Your task to perform on an android device: toggle improve location accuracy Image 0: 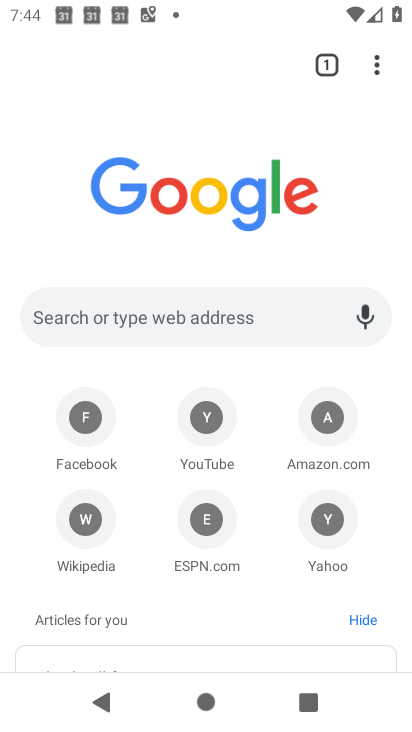
Step 0: press home button
Your task to perform on an android device: toggle improve location accuracy Image 1: 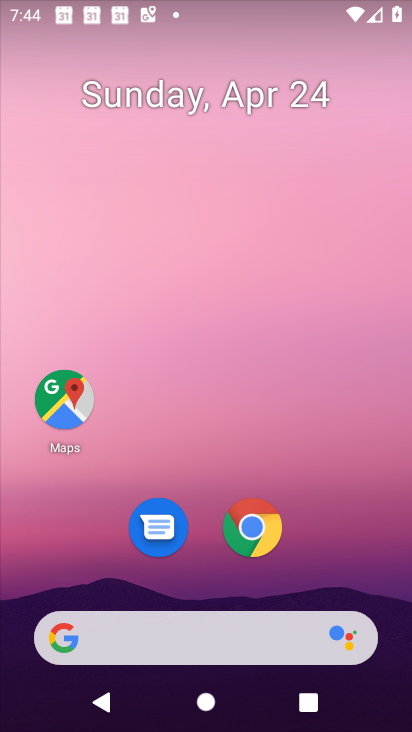
Step 1: drag from (380, 599) to (290, 59)
Your task to perform on an android device: toggle improve location accuracy Image 2: 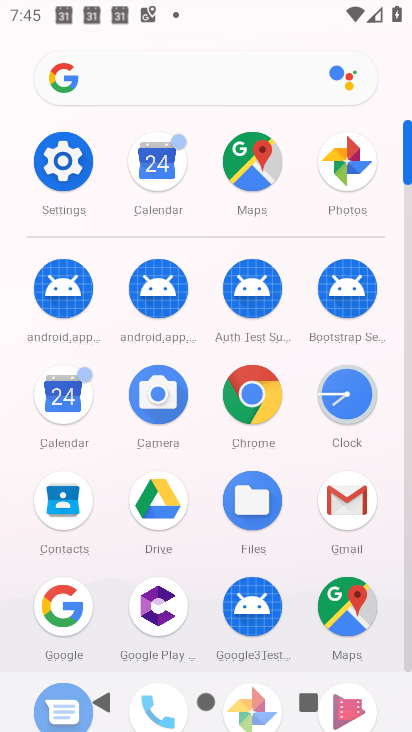
Step 2: click (59, 181)
Your task to perform on an android device: toggle improve location accuracy Image 3: 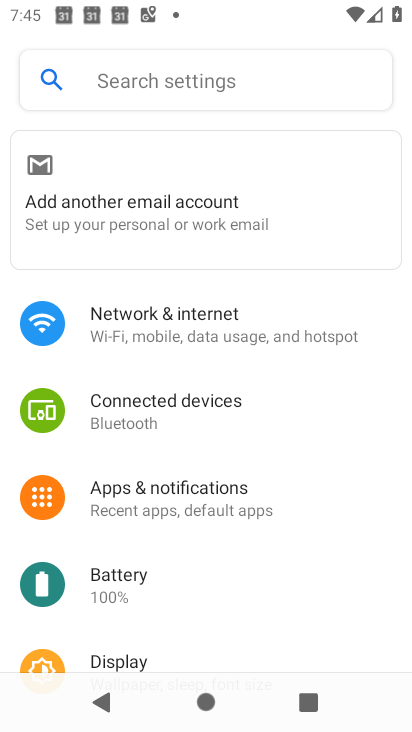
Step 3: drag from (170, 597) to (217, 171)
Your task to perform on an android device: toggle improve location accuracy Image 4: 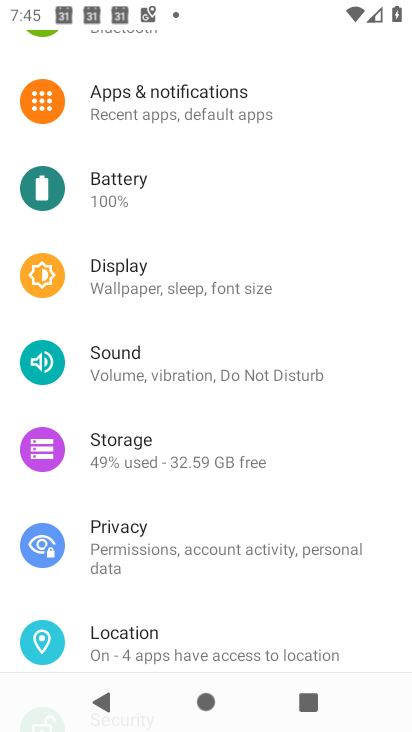
Step 4: click (138, 630)
Your task to perform on an android device: toggle improve location accuracy Image 5: 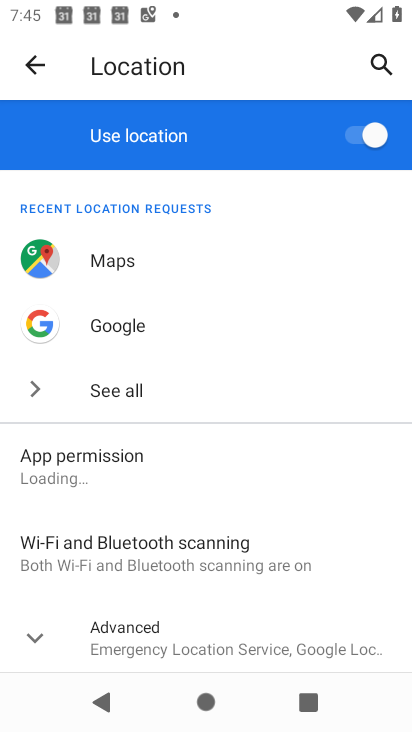
Step 5: click (153, 635)
Your task to perform on an android device: toggle improve location accuracy Image 6: 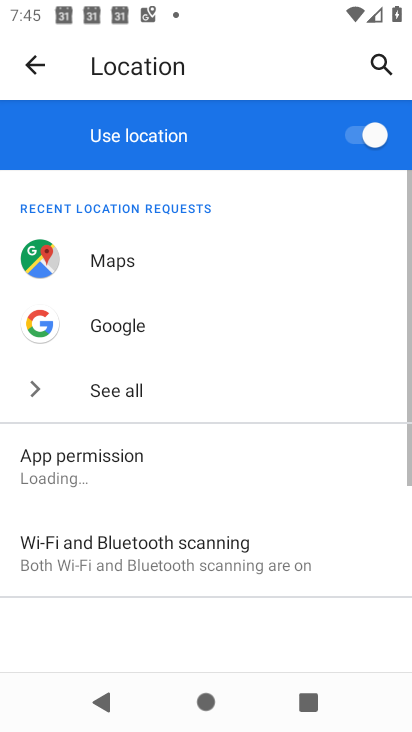
Step 6: drag from (153, 635) to (232, 310)
Your task to perform on an android device: toggle improve location accuracy Image 7: 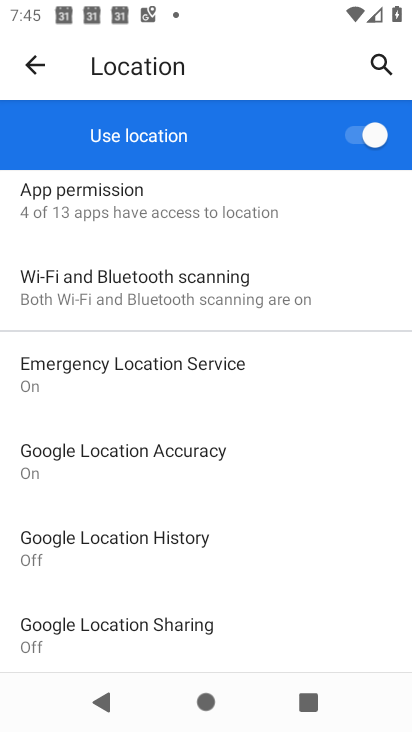
Step 7: click (223, 458)
Your task to perform on an android device: toggle improve location accuracy Image 8: 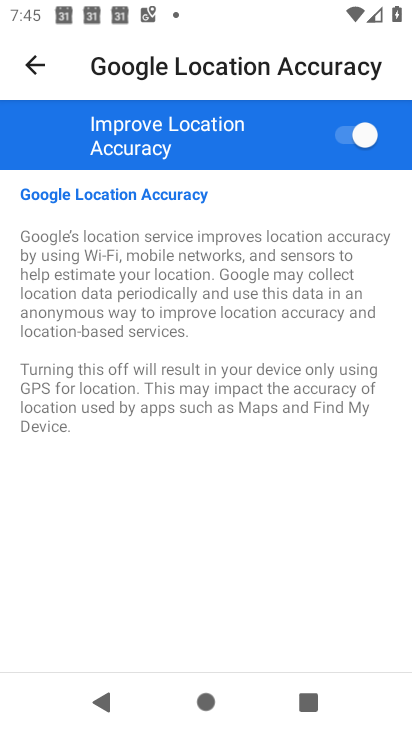
Step 8: click (354, 142)
Your task to perform on an android device: toggle improve location accuracy Image 9: 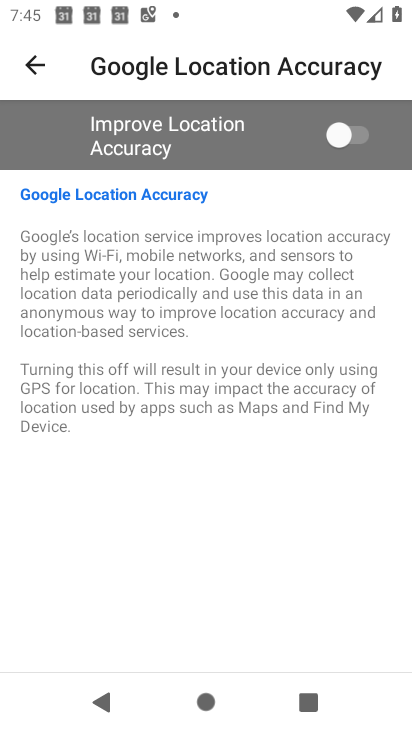
Step 9: task complete